Your task to perform on an android device: Go to Yahoo.com Image 0: 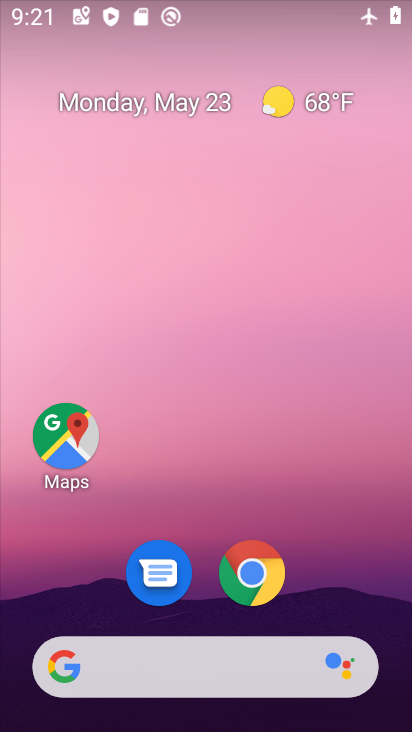
Step 0: click (257, 580)
Your task to perform on an android device: Go to Yahoo.com Image 1: 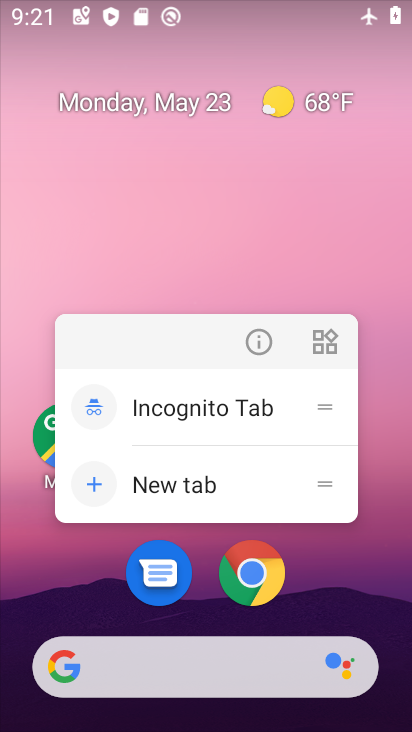
Step 1: click (257, 580)
Your task to perform on an android device: Go to Yahoo.com Image 2: 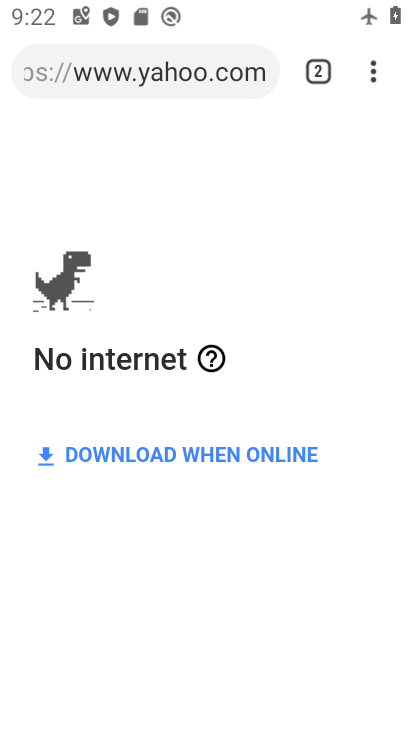
Step 2: task complete